Your task to perform on an android device: create a new album in the google photos Image 0: 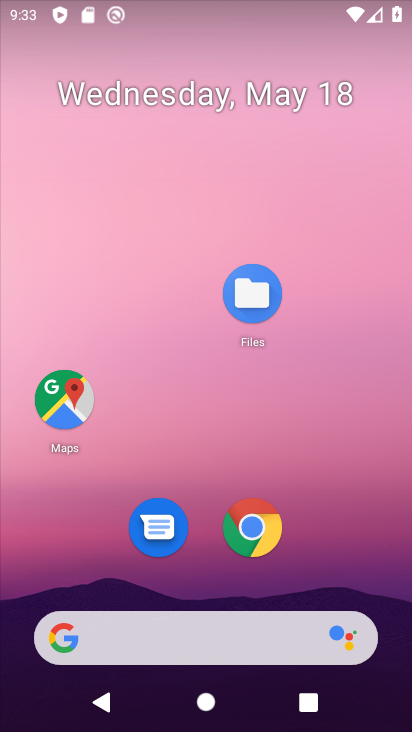
Step 0: drag from (349, 530) to (330, 187)
Your task to perform on an android device: create a new album in the google photos Image 1: 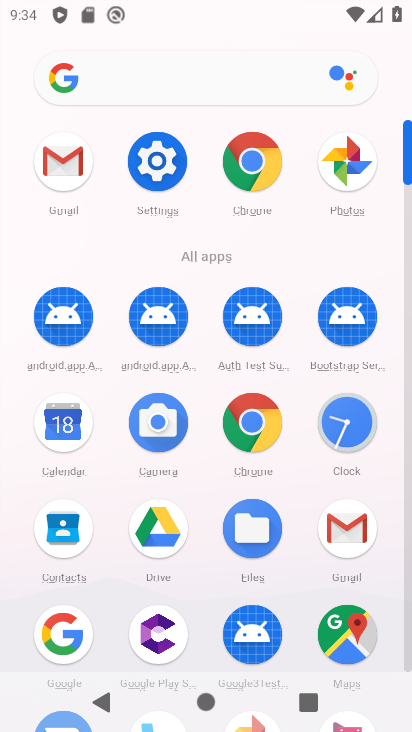
Step 1: click (352, 153)
Your task to perform on an android device: create a new album in the google photos Image 2: 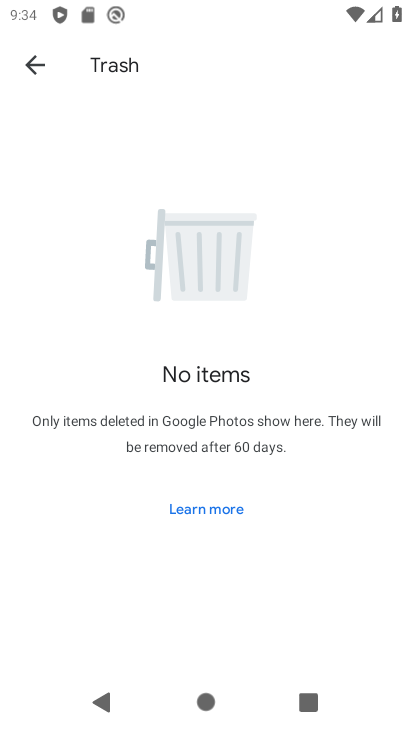
Step 2: click (25, 62)
Your task to perform on an android device: create a new album in the google photos Image 3: 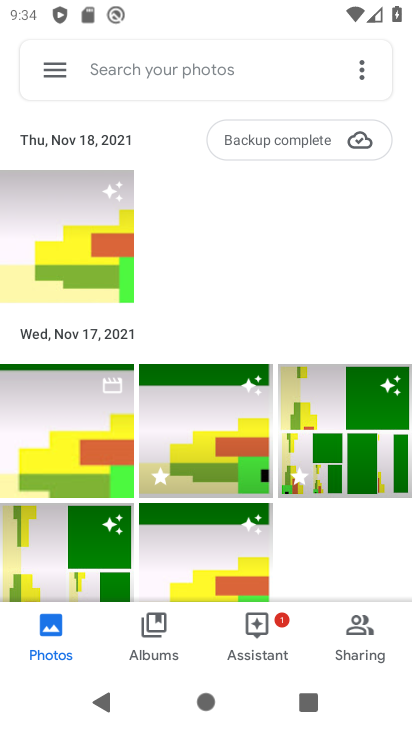
Step 3: click (365, 61)
Your task to perform on an android device: create a new album in the google photos Image 4: 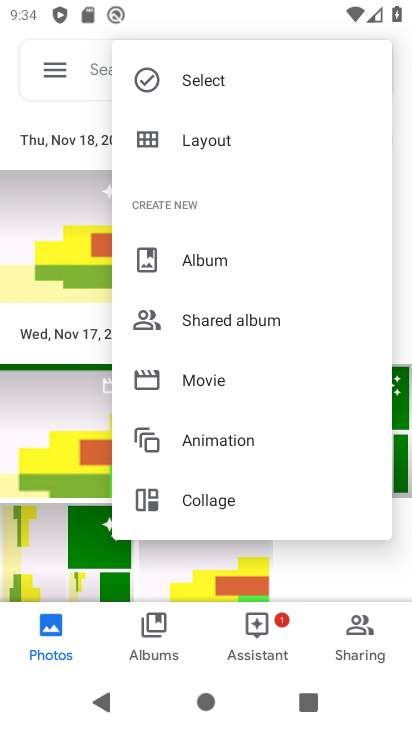
Step 4: click (215, 262)
Your task to perform on an android device: create a new album in the google photos Image 5: 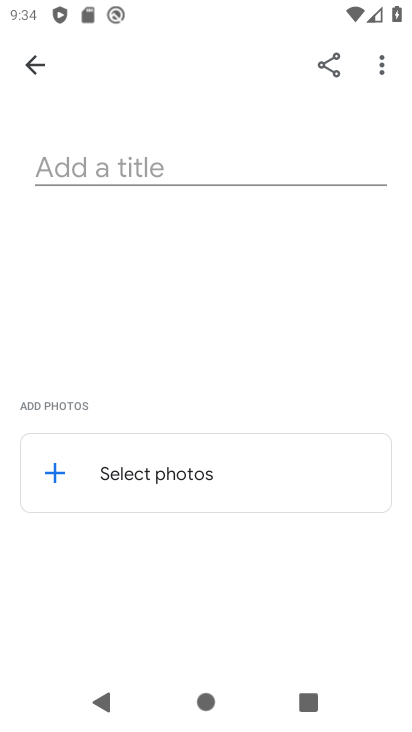
Step 5: type "hgfhgf"
Your task to perform on an android device: create a new album in the google photos Image 6: 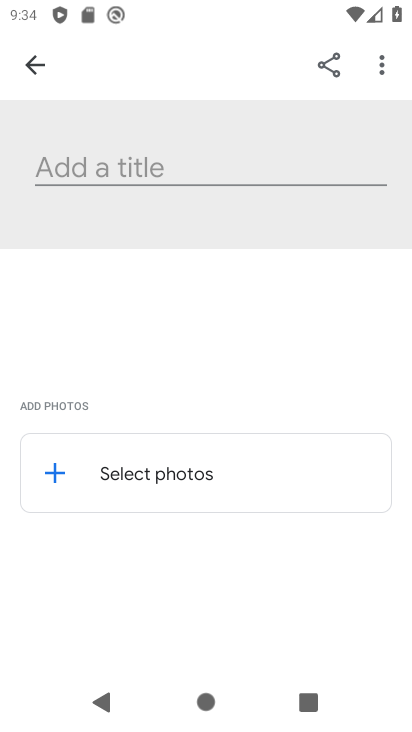
Step 6: click (64, 472)
Your task to perform on an android device: create a new album in the google photos Image 7: 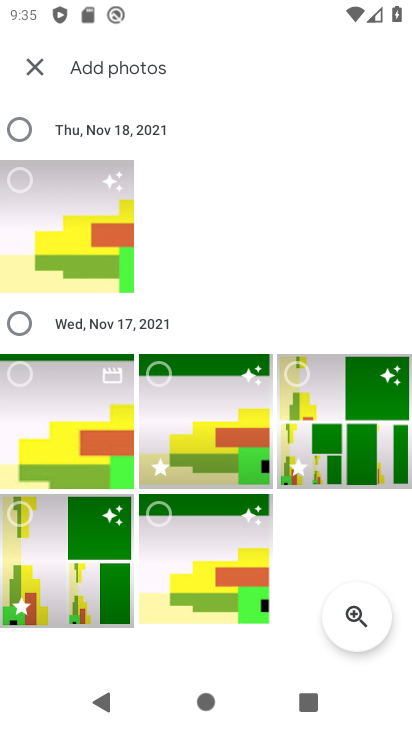
Step 7: click (23, 318)
Your task to perform on an android device: create a new album in the google photos Image 8: 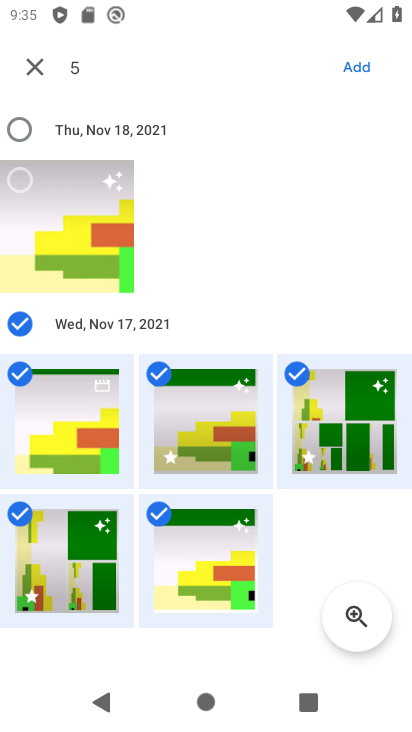
Step 8: click (362, 63)
Your task to perform on an android device: create a new album in the google photos Image 9: 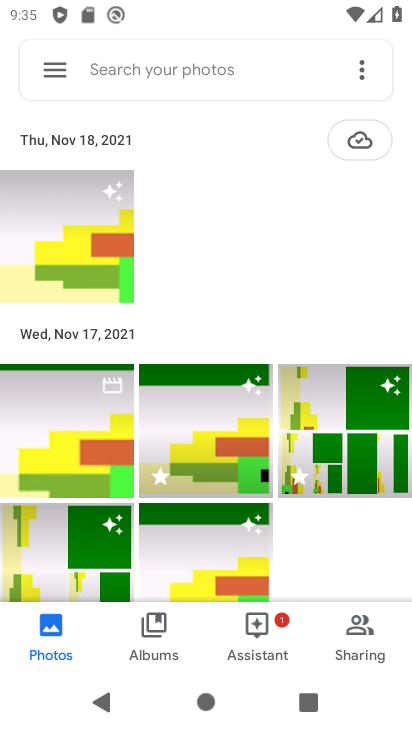
Step 9: task complete